Your task to perform on an android device: toggle priority inbox in the gmail app Image 0: 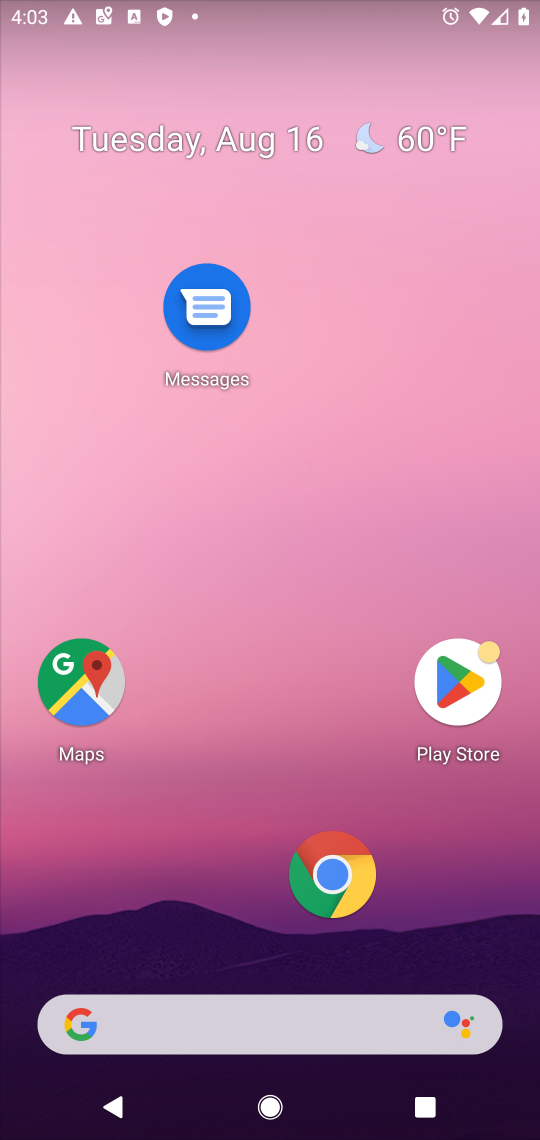
Step 0: drag from (291, 904) to (299, 113)
Your task to perform on an android device: toggle priority inbox in the gmail app Image 1: 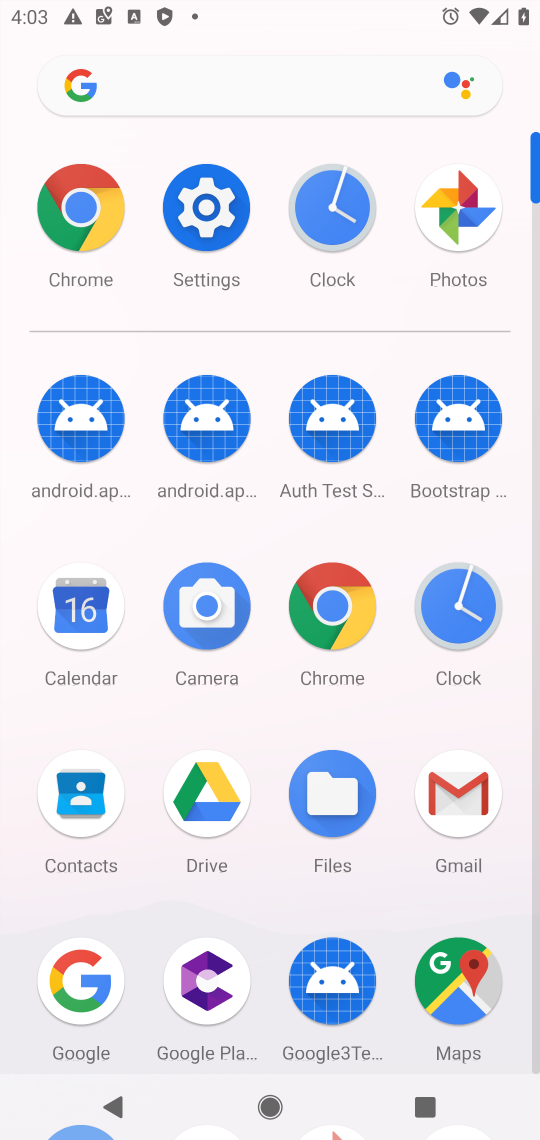
Step 1: click (461, 780)
Your task to perform on an android device: toggle priority inbox in the gmail app Image 2: 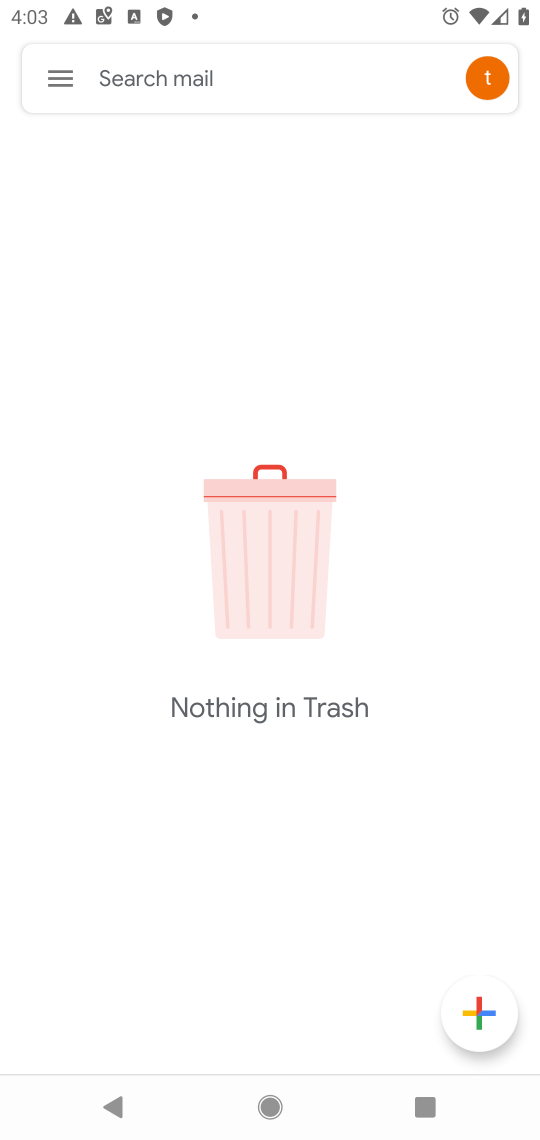
Step 2: click (48, 86)
Your task to perform on an android device: toggle priority inbox in the gmail app Image 3: 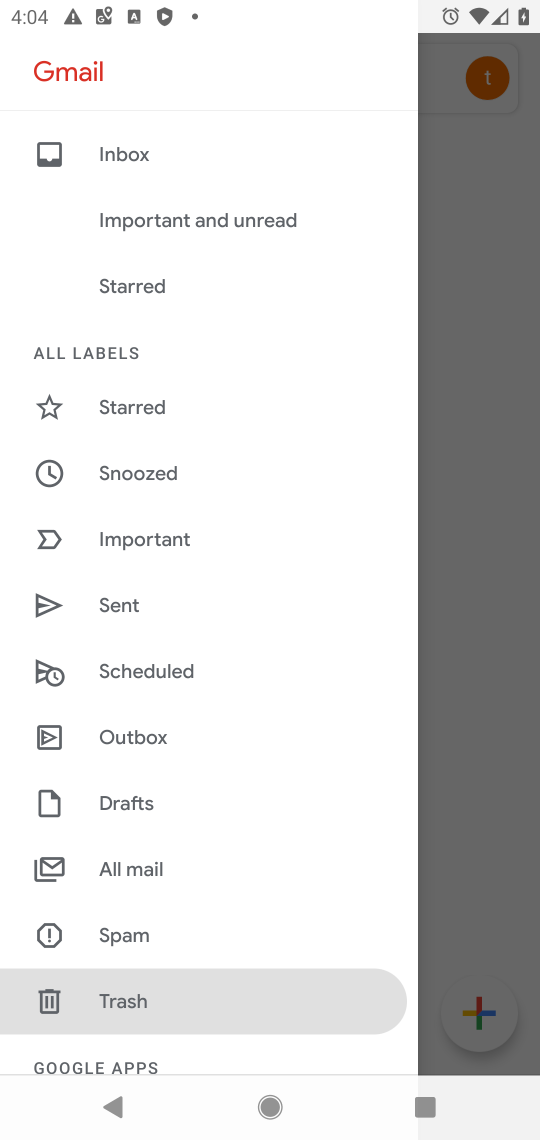
Step 3: drag from (193, 961) to (223, 386)
Your task to perform on an android device: toggle priority inbox in the gmail app Image 4: 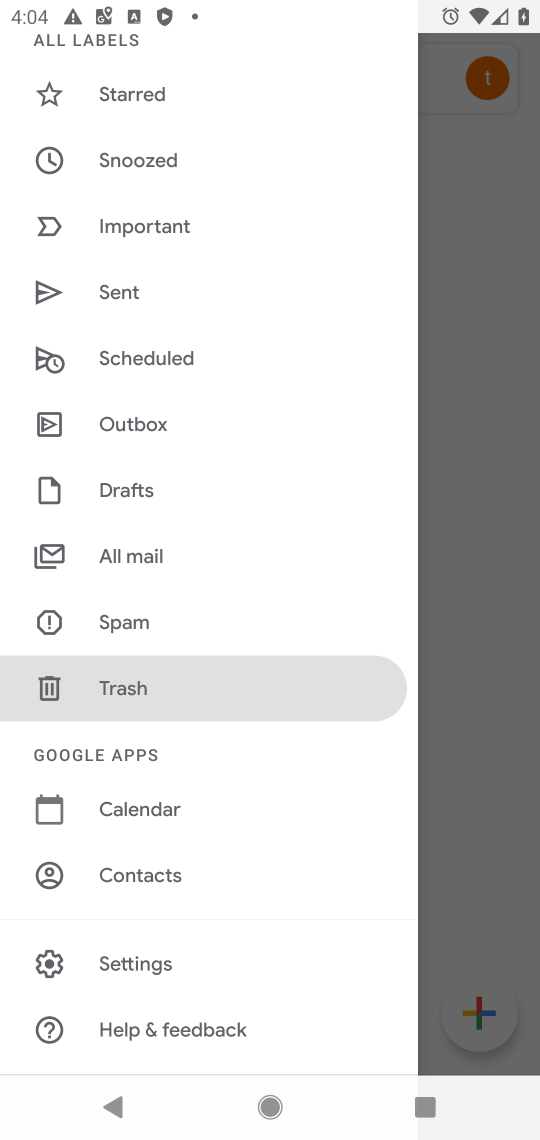
Step 4: click (125, 968)
Your task to perform on an android device: toggle priority inbox in the gmail app Image 5: 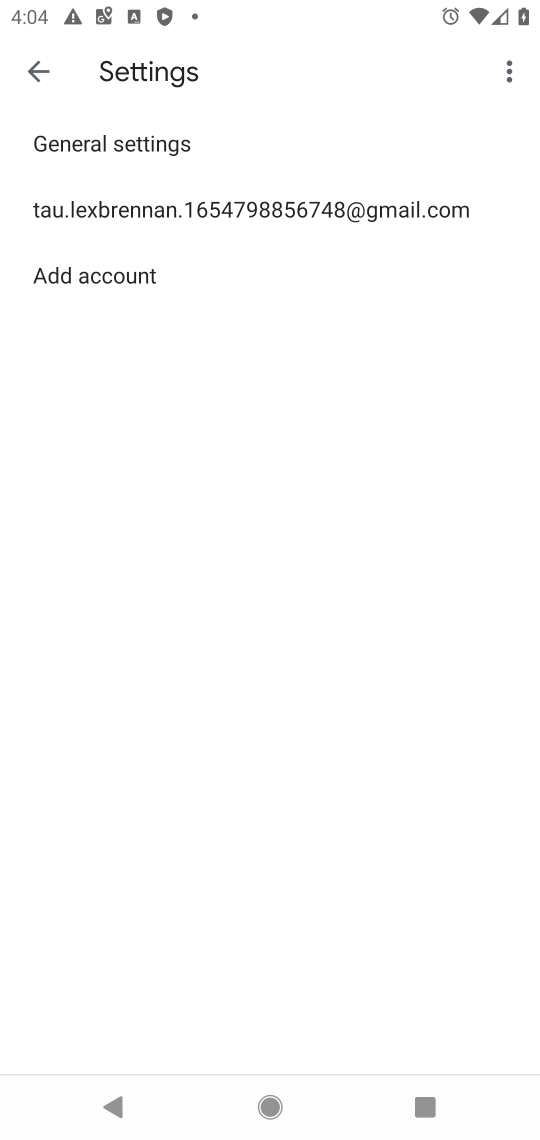
Step 5: click (94, 208)
Your task to perform on an android device: toggle priority inbox in the gmail app Image 6: 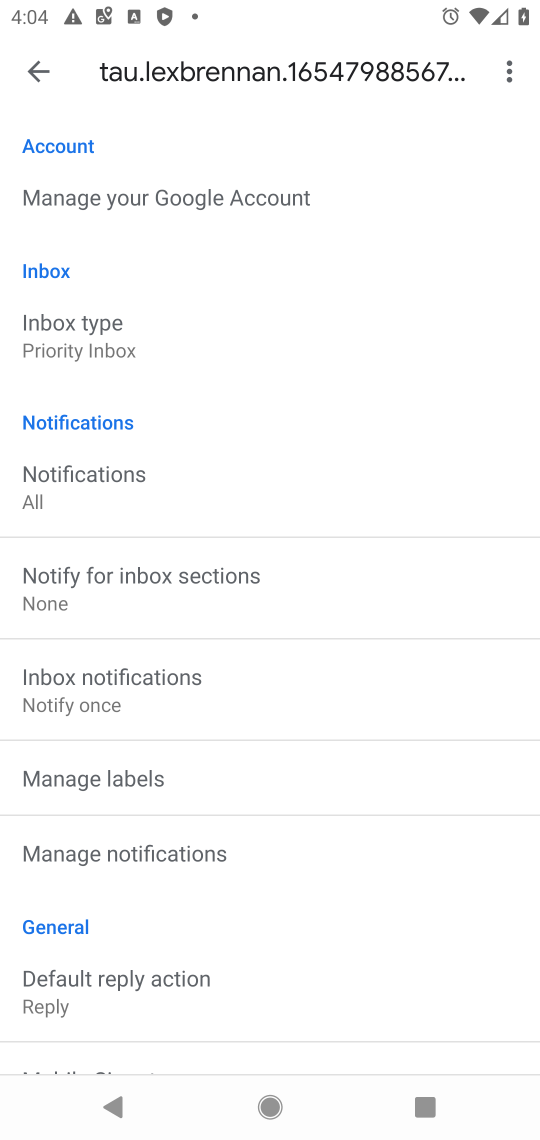
Step 6: click (81, 318)
Your task to perform on an android device: toggle priority inbox in the gmail app Image 7: 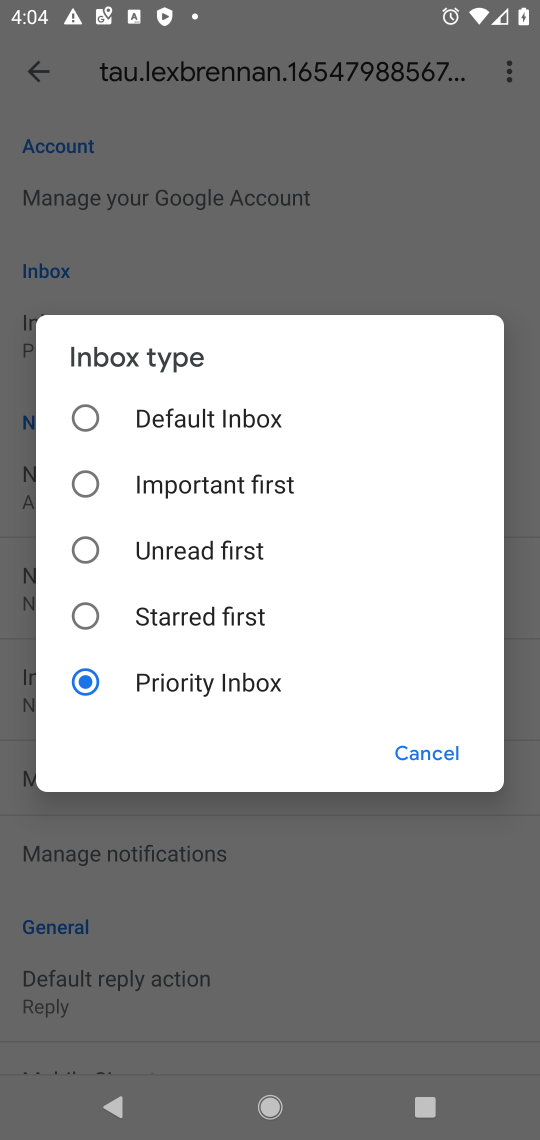
Step 7: click (86, 478)
Your task to perform on an android device: toggle priority inbox in the gmail app Image 8: 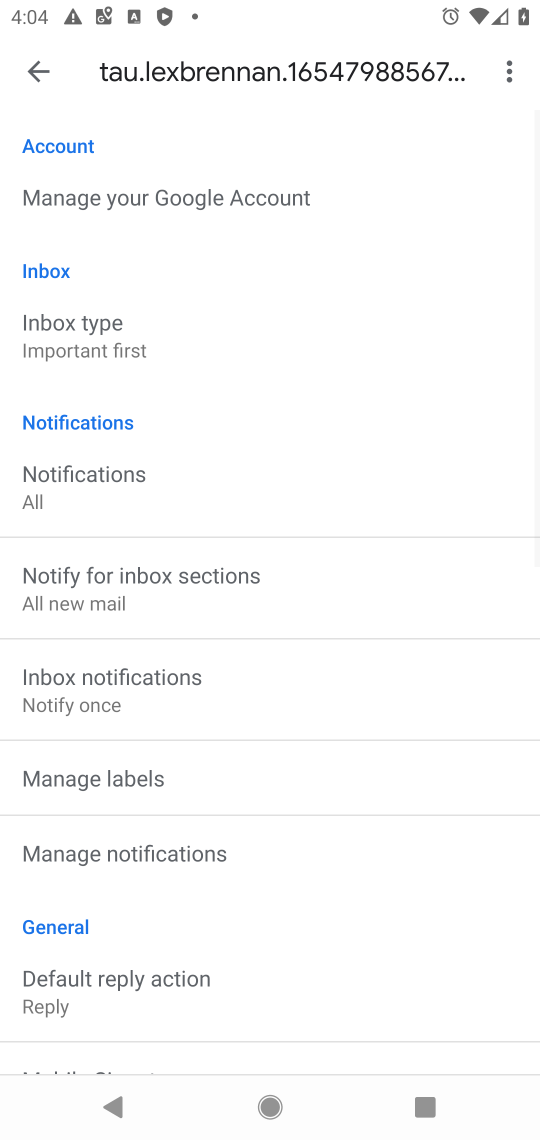
Step 8: task complete